Your task to perform on an android device: check storage Image 0: 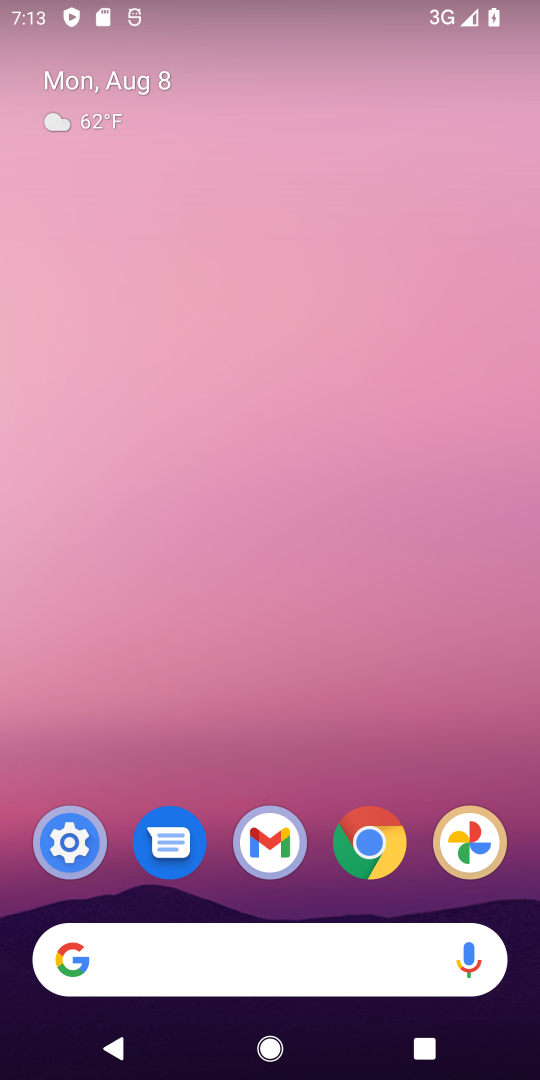
Step 0: drag from (322, 903) to (94, 756)
Your task to perform on an android device: check storage Image 1: 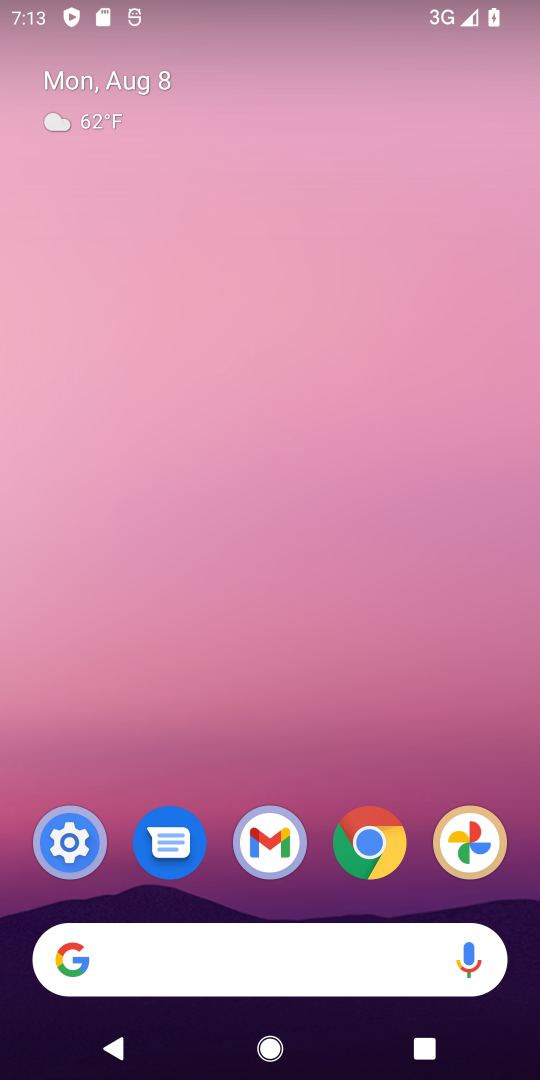
Step 1: drag from (398, 912) to (302, 31)
Your task to perform on an android device: check storage Image 2: 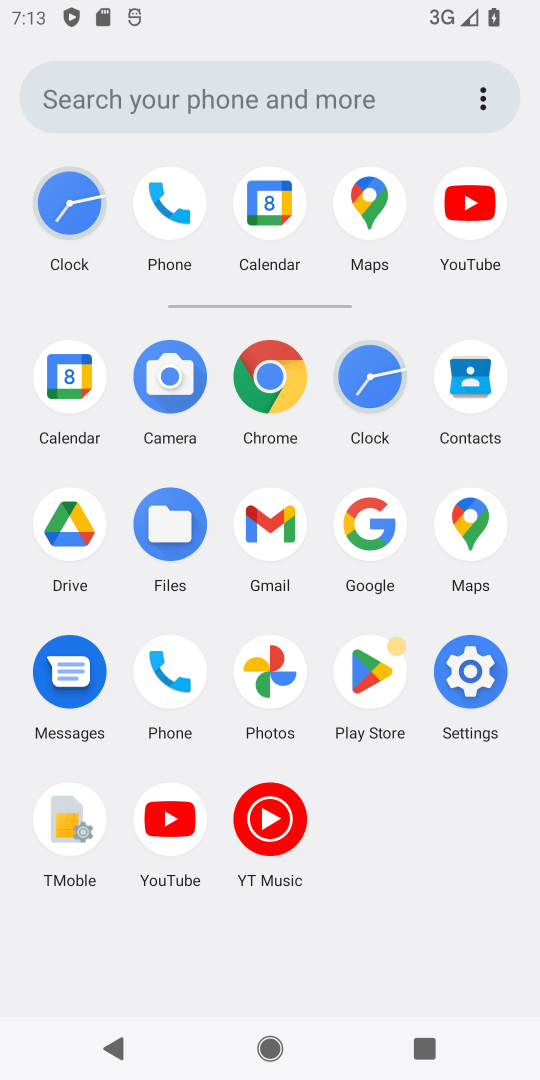
Step 2: click (462, 688)
Your task to perform on an android device: check storage Image 3: 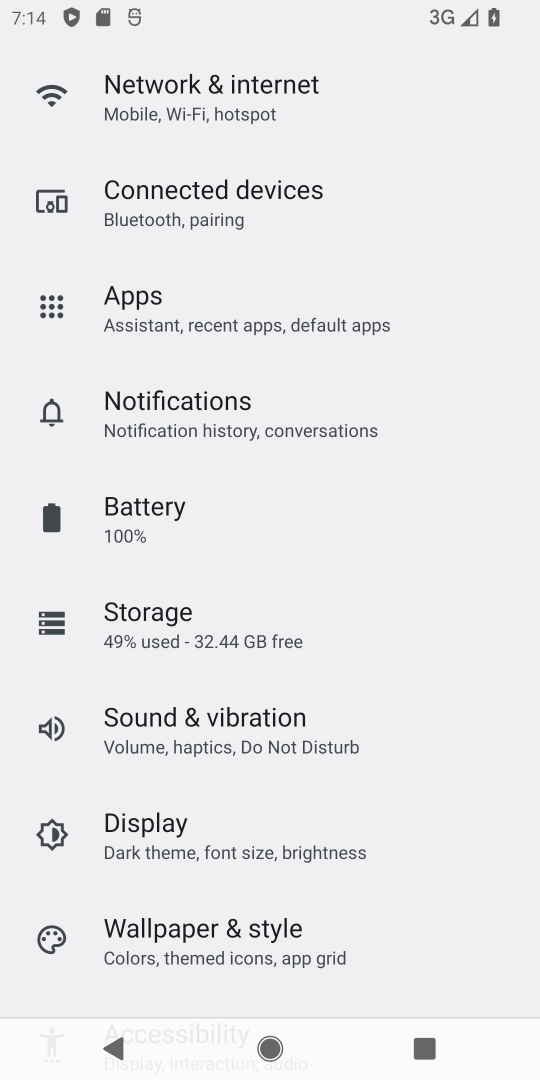
Step 3: click (127, 632)
Your task to perform on an android device: check storage Image 4: 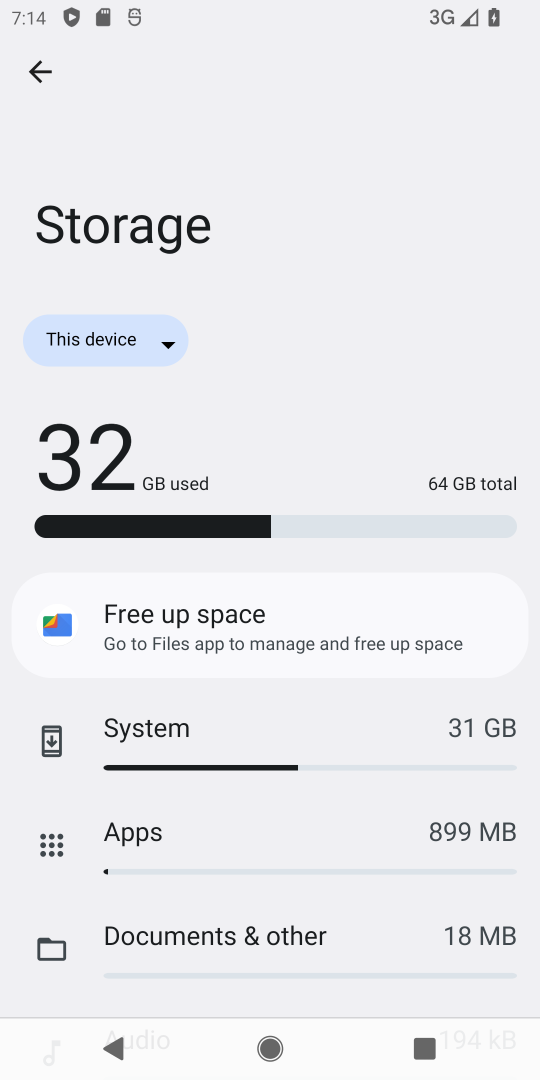
Step 4: task complete